Your task to perform on an android device: View the shopping cart on bestbuy. Search for usb-c to usb-b on bestbuy, select the first entry, add it to the cart, then select checkout. Image 0: 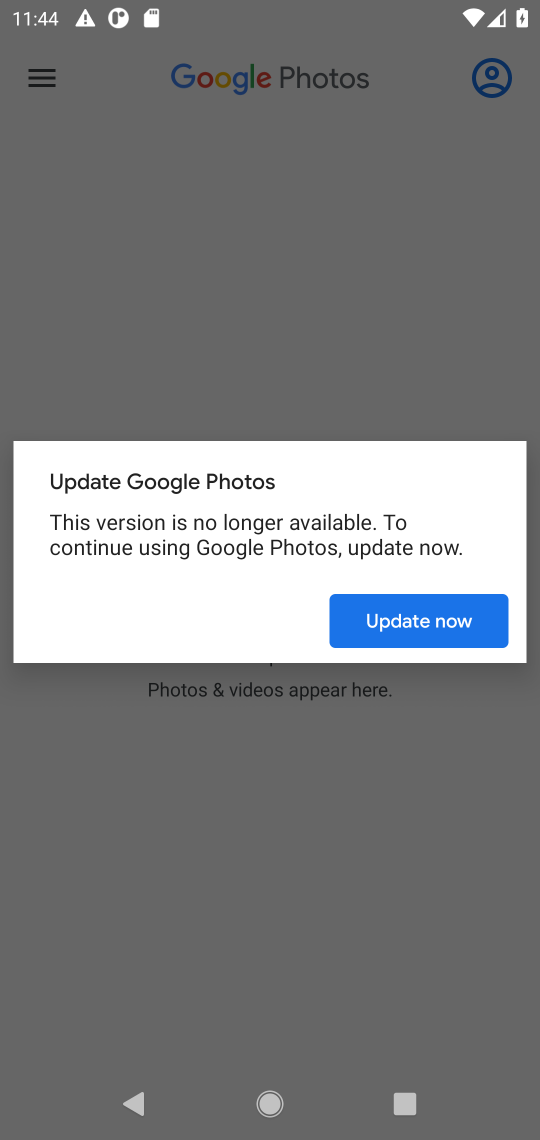
Step 0: press home button
Your task to perform on an android device: View the shopping cart on bestbuy. Search for usb-c to usb-b on bestbuy, select the first entry, add it to the cart, then select checkout. Image 1: 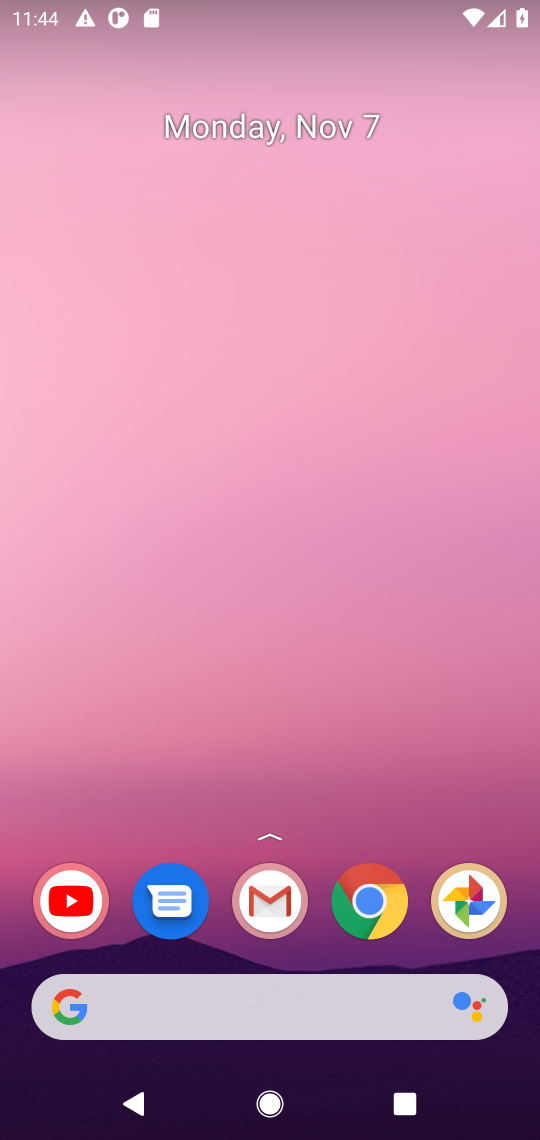
Step 1: click (393, 897)
Your task to perform on an android device: View the shopping cart on bestbuy. Search for usb-c to usb-b on bestbuy, select the first entry, add it to the cart, then select checkout. Image 2: 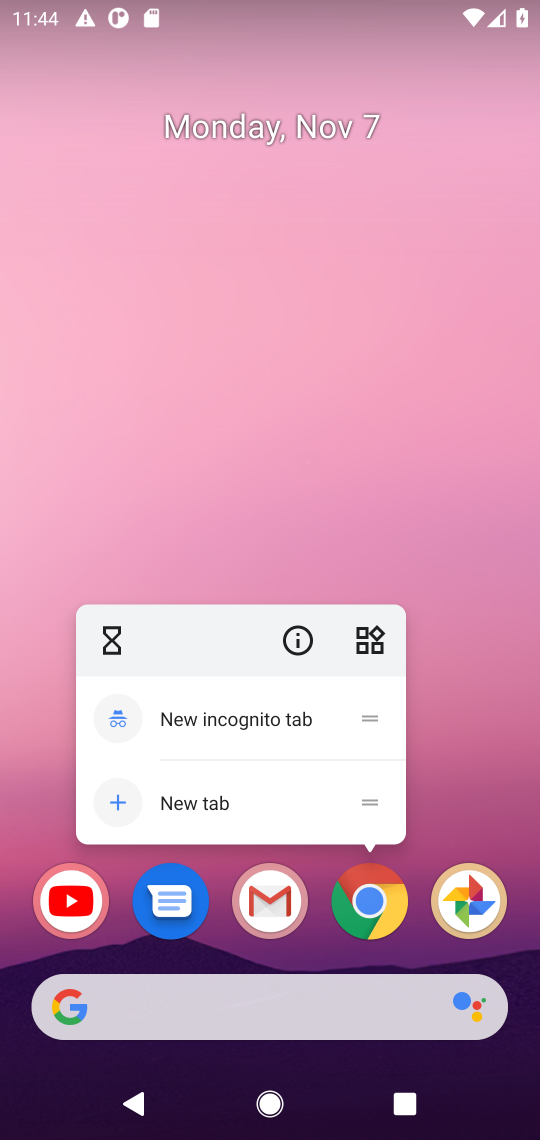
Step 2: click (391, 900)
Your task to perform on an android device: View the shopping cart on bestbuy. Search for usb-c to usb-b on bestbuy, select the first entry, add it to the cart, then select checkout. Image 3: 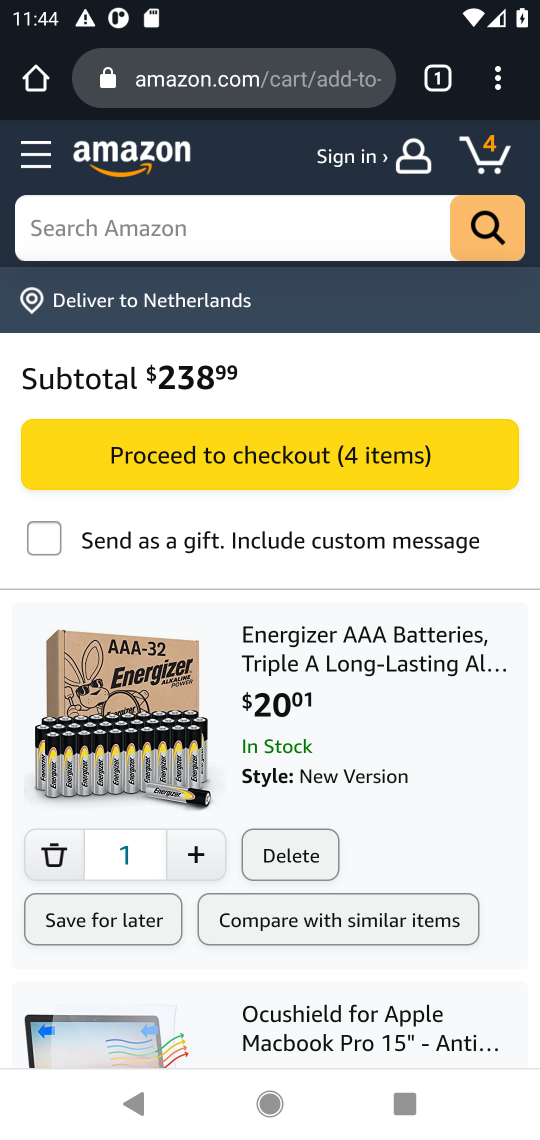
Step 3: click (241, 79)
Your task to perform on an android device: View the shopping cart on bestbuy. Search for usb-c to usb-b on bestbuy, select the first entry, add it to the cart, then select checkout. Image 4: 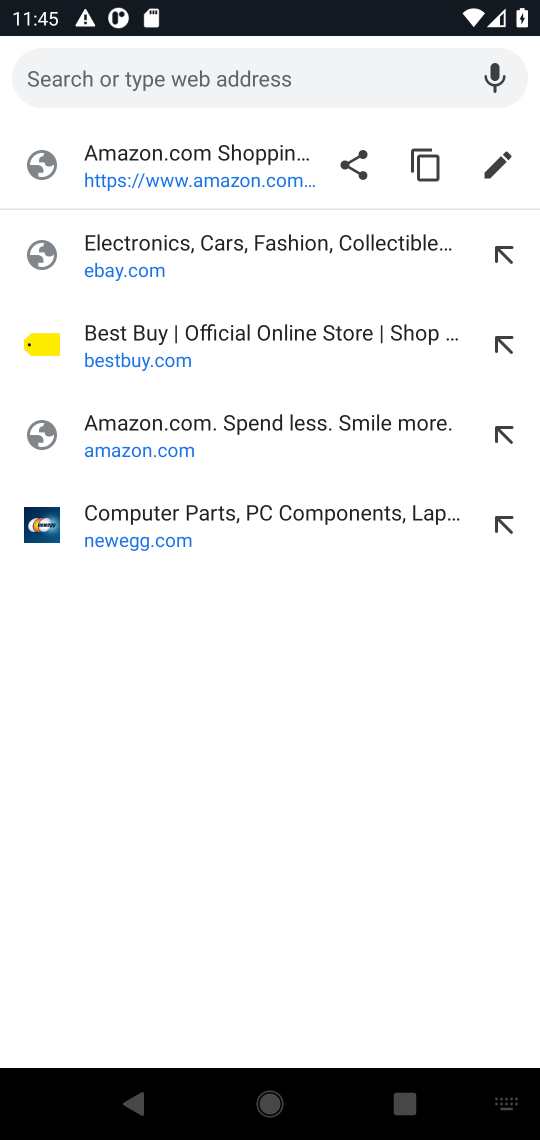
Step 4: type "bestbuy.com"
Your task to perform on an android device: View the shopping cart on bestbuy. Search for usb-c to usb-b on bestbuy, select the first entry, add it to the cart, then select checkout. Image 5: 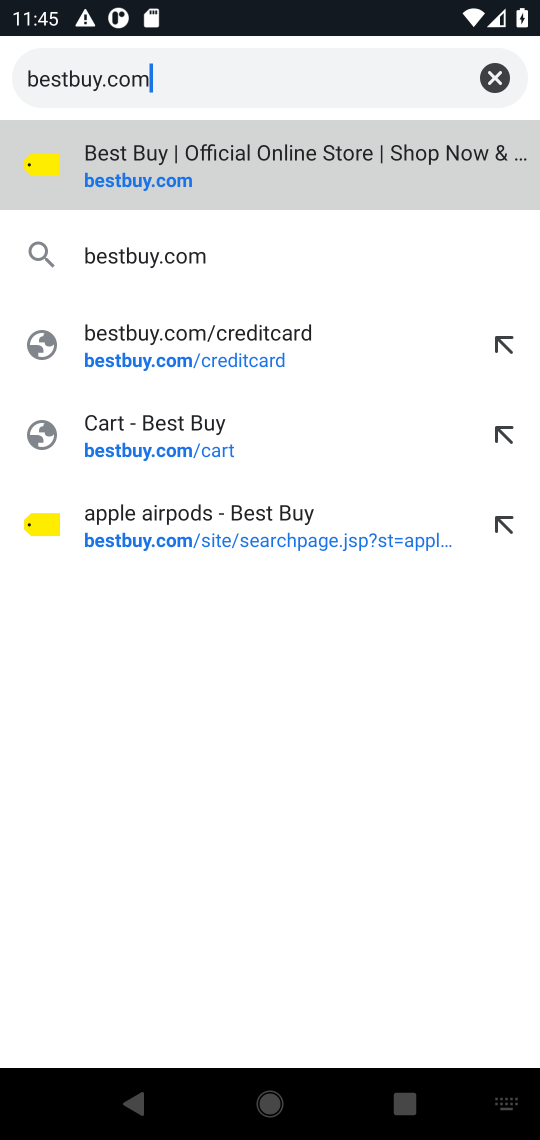
Step 5: click (205, 163)
Your task to perform on an android device: View the shopping cart on bestbuy. Search for usb-c to usb-b on bestbuy, select the first entry, add it to the cart, then select checkout. Image 6: 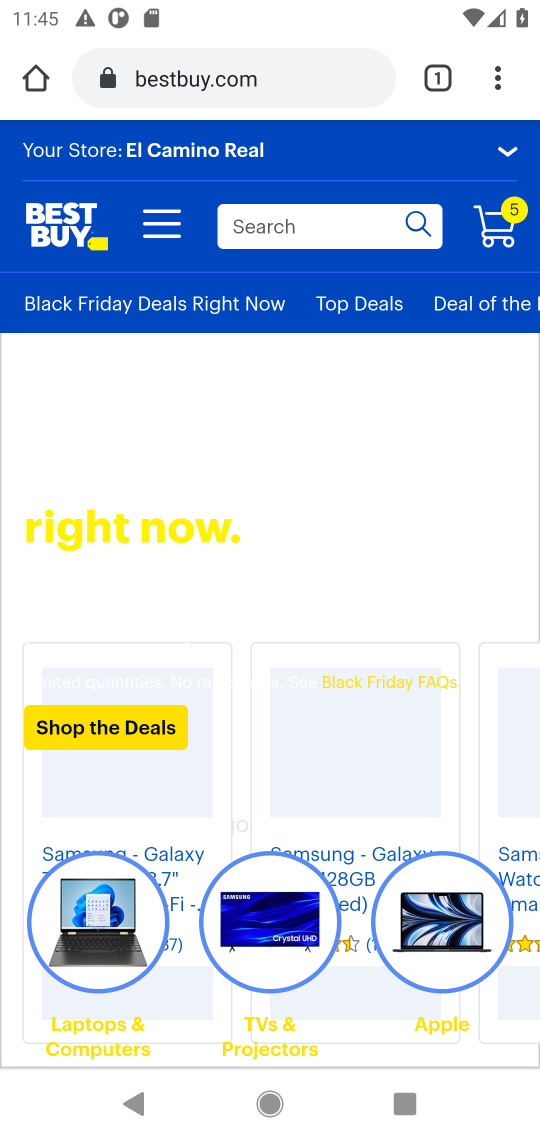
Step 6: click (494, 232)
Your task to perform on an android device: View the shopping cart on bestbuy. Search for usb-c to usb-b on bestbuy, select the first entry, add it to the cart, then select checkout. Image 7: 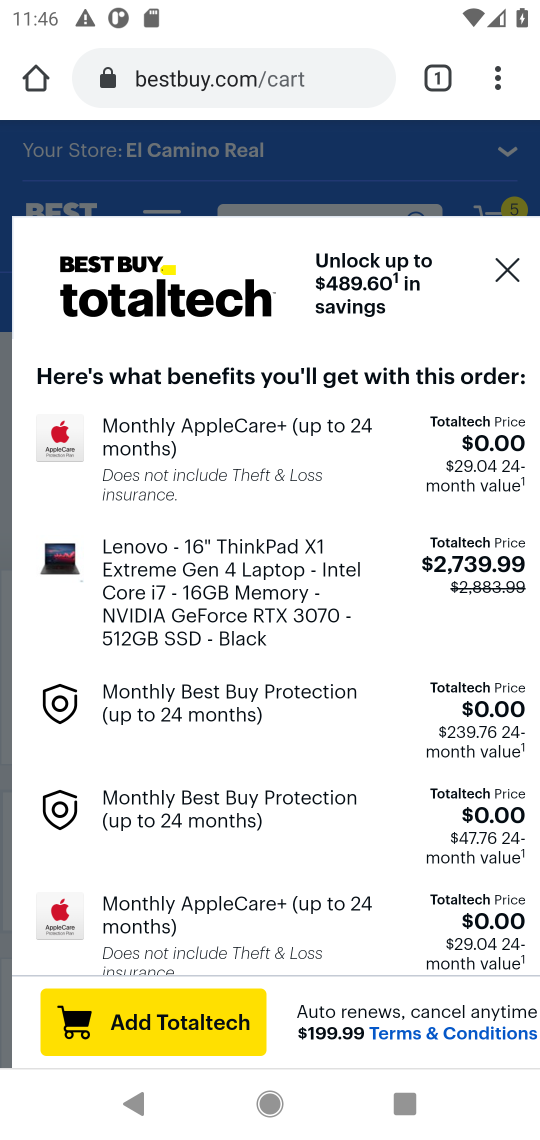
Step 7: click (504, 276)
Your task to perform on an android device: View the shopping cart on bestbuy. Search for usb-c to usb-b on bestbuy, select the first entry, add it to the cart, then select checkout. Image 8: 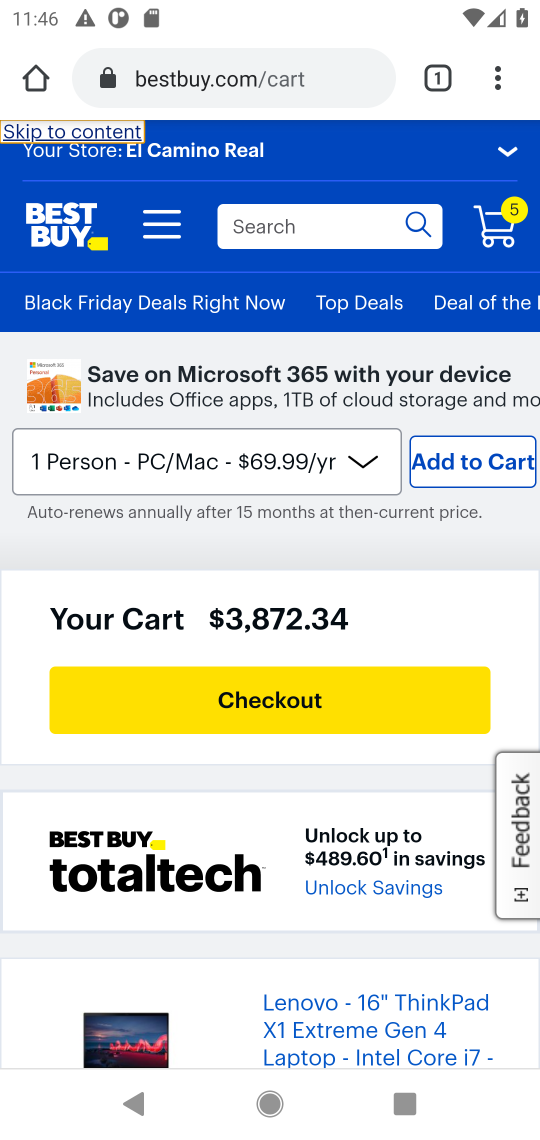
Step 8: click (350, 227)
Your task to perform on an android device: View the shopping cart on bestbuy. Search for usb-c to usb-b on bestbuy, select the first entry, add it to the cart, then select checkout. Image 9: 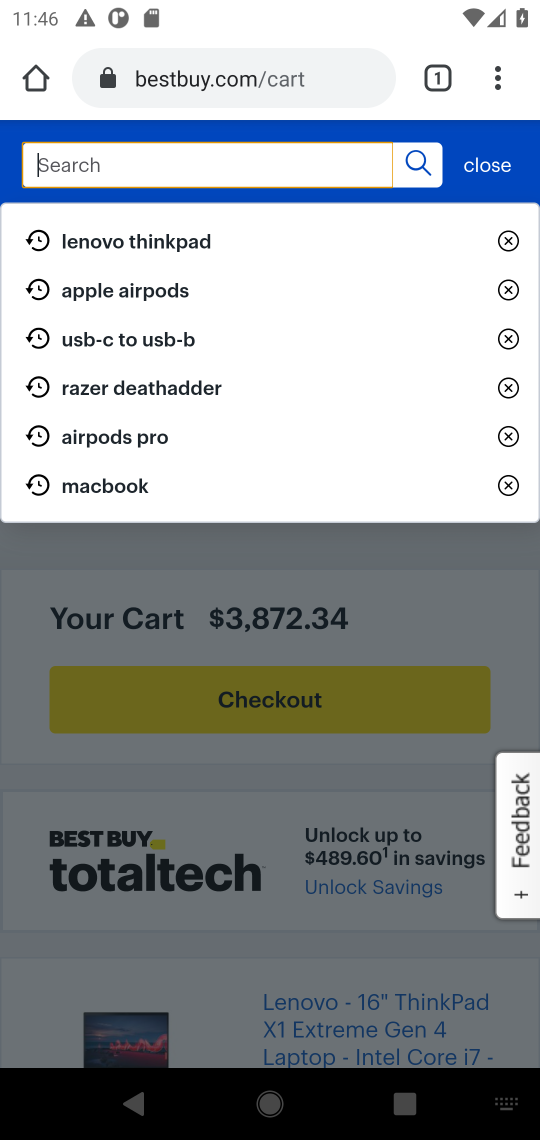
Step 9: type "usb-c to usb-b"
Your task to perform on an android device: View the shopping cart on bestbuy. Search for usb-c to usb-b on bestbuy, select the first entry, add it to the cart, then select checkout. Image 10: 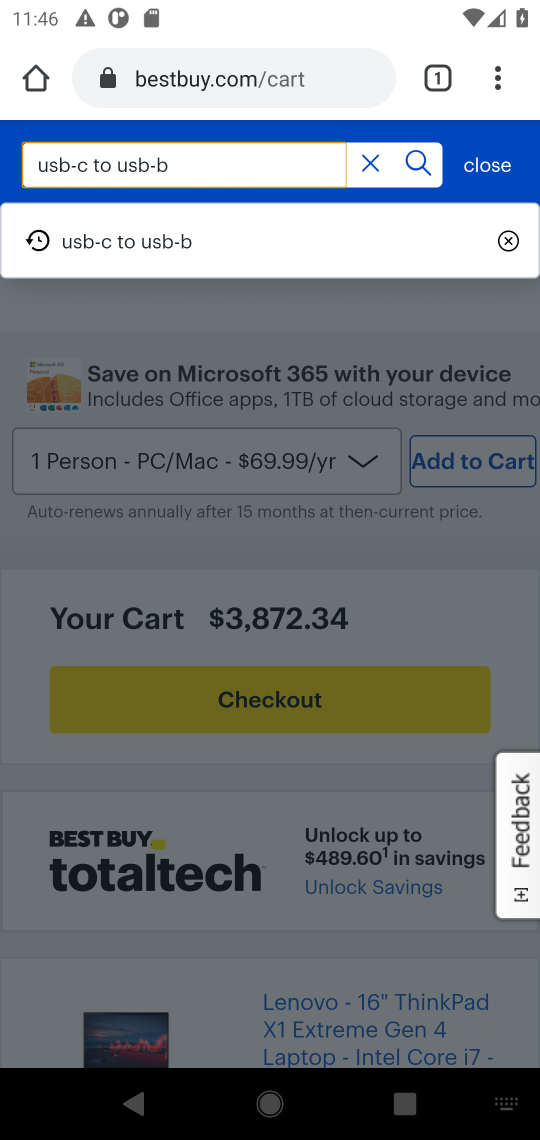
Step 10: press enter
Your task to perform on an android device: View the shopping cart on bestbuy. Search for usb-c to usb-b on bestbuy, select the first entry, add it to the cart, then select checkout. Image 11: 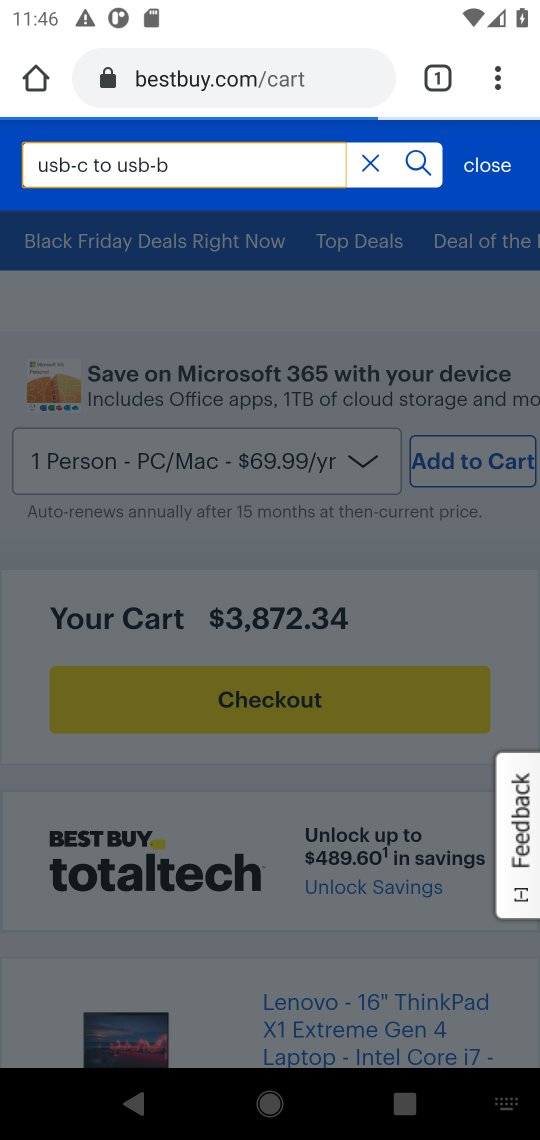
Step 11: press enter
Your task to perform on an android device: View the shopping cart on bestbuy. Search for usb-c to usb-b on bestbuy, select the first entry, add it to the cart, then select checkout. Image 12: 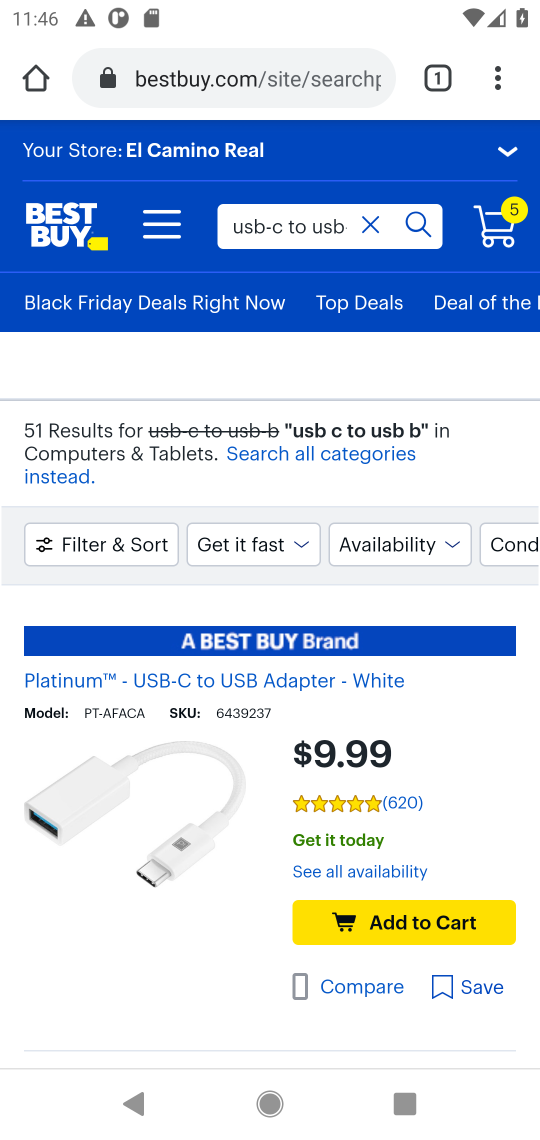
Step 12: click (420, 913)
Your task to perform on an android device: View the shopping cart on bestbuy. Search for usb-c to usb-b on bestbuy, select the first entry, add it to the cart, then select checkout. Image 13: 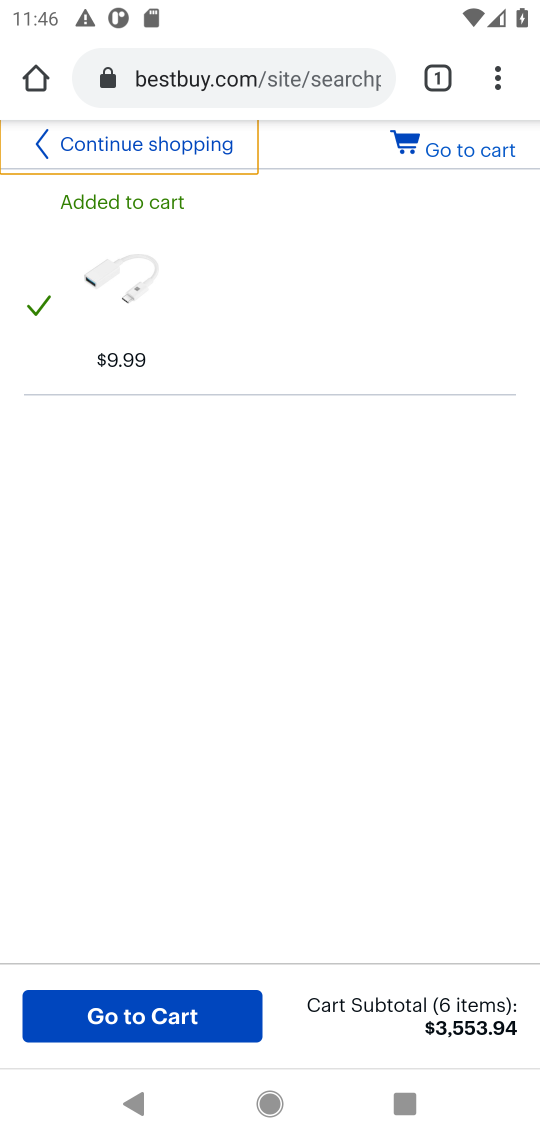
Step 13: click (147, 1014)
Your task to perform on an android device: View the shopping cart on bestbuy. Search for usb-c to usb-b on bestbuy, select the first entry, add it to the cart, then select checkout. Image 14: 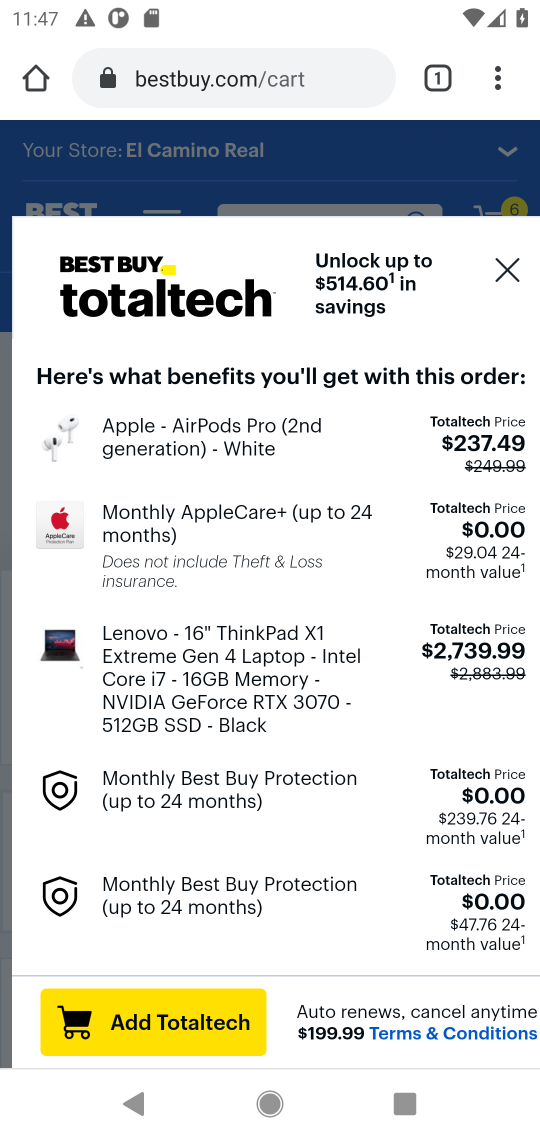
Step 14: task complete